Your task to perform on an android device: find photos in the google photos app Image 0: 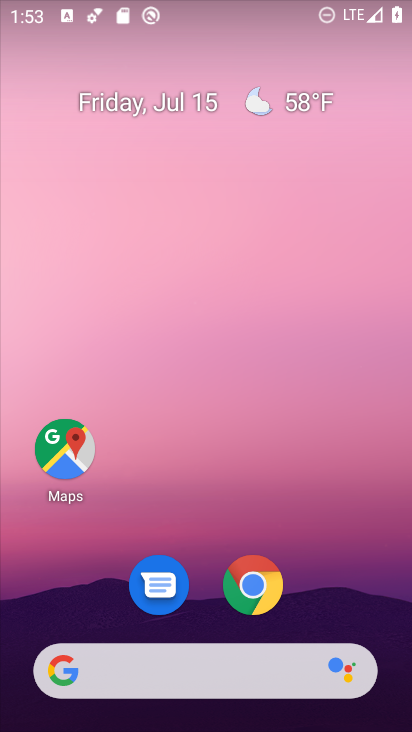
Step 0: drag from (332, 585) to (328, 60)
Your task to perform on an android device: find photos in the google photos app Image 1: 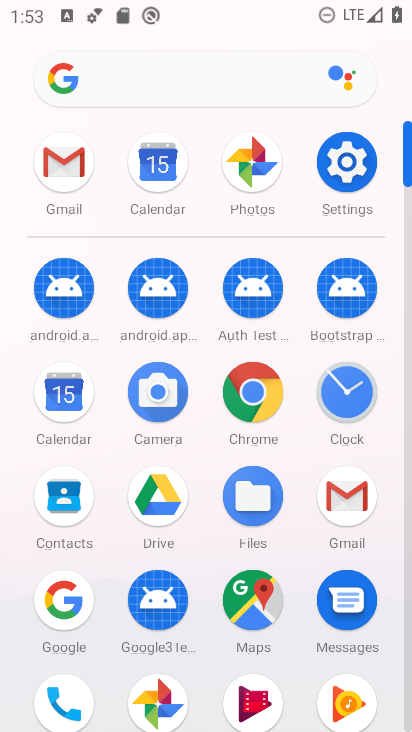
Step 1: click (246, 160)
Your task to perform on an android device: find photos in the google photos app Image 2: 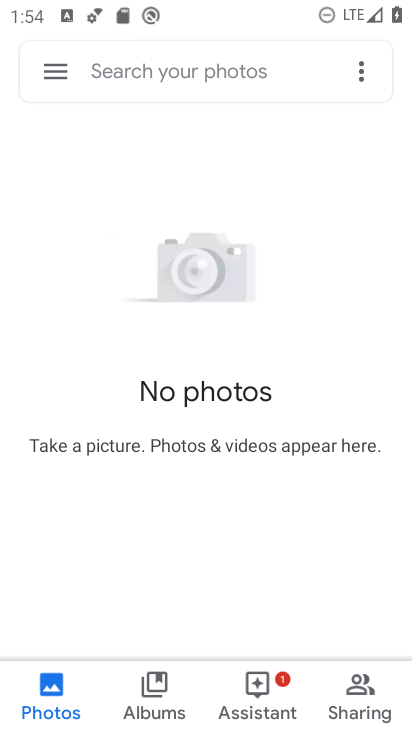
Step 2: task complete